Your task to perform on an android device: Add "logitech g pro" to the cart on ebay.com Image 0: 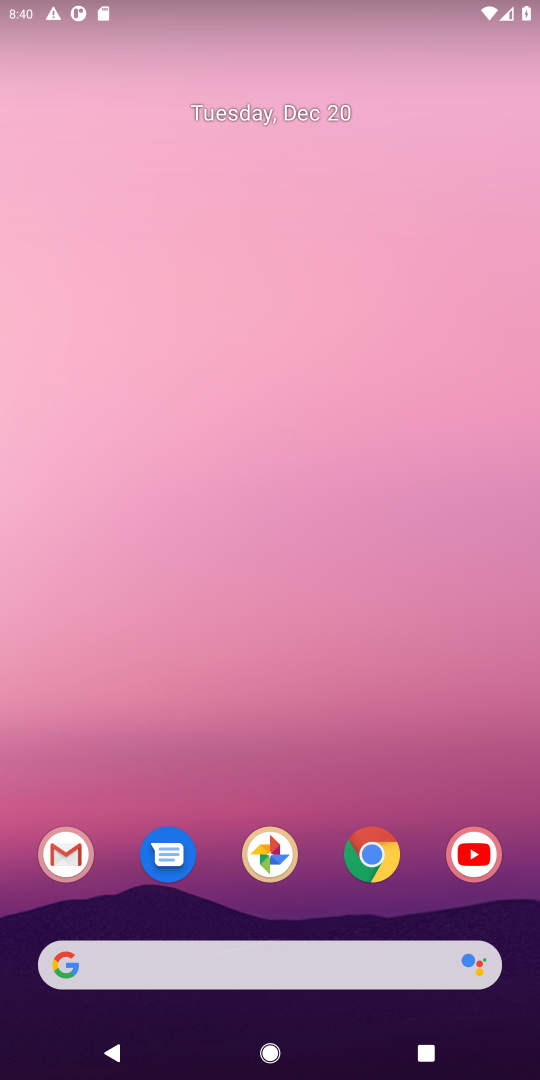
Step 0: click (374, 858)
Your task to perform on an android device: Add "logitech g pro" to the cart on ebay.com Image 1: 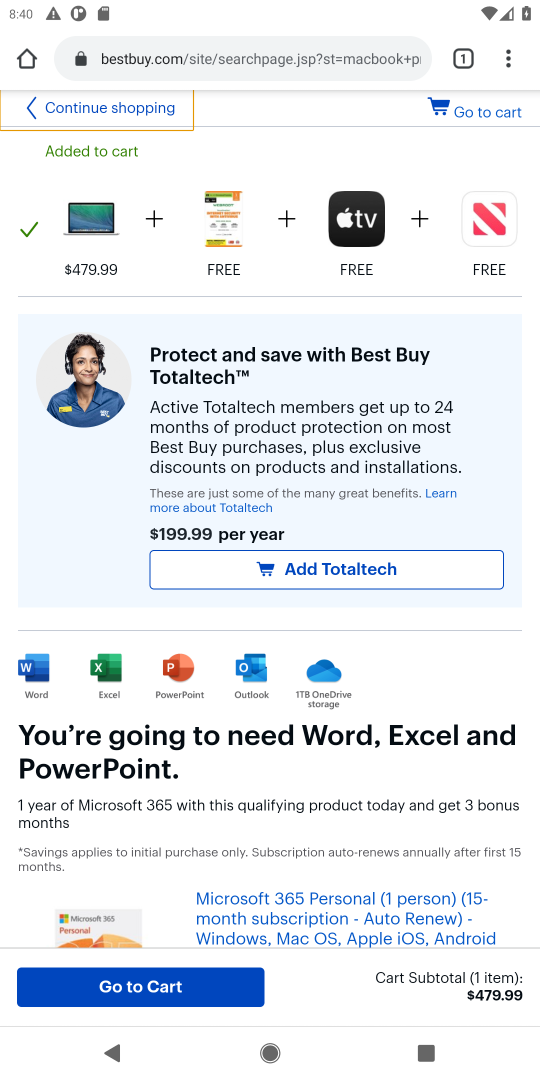
Step 1: click (200, 60)
Your task to perform on an android device: Add "logitech g pro" to the cart on ebay.com Image 2: 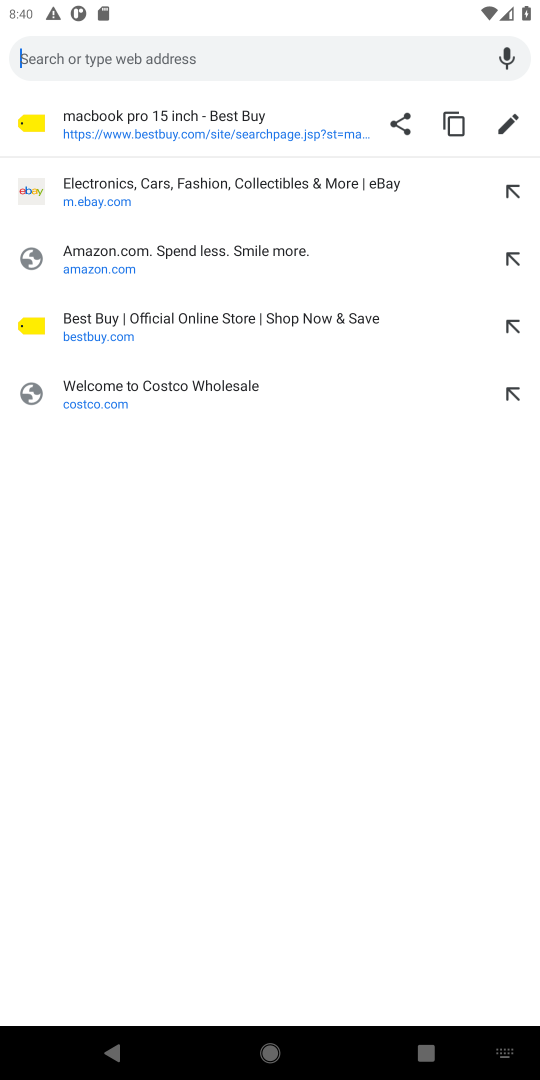
Step 2: click (100, 209)
Your task to perform on an android device: Add "logitech g pro" to the cart on ebay.com Image 3: 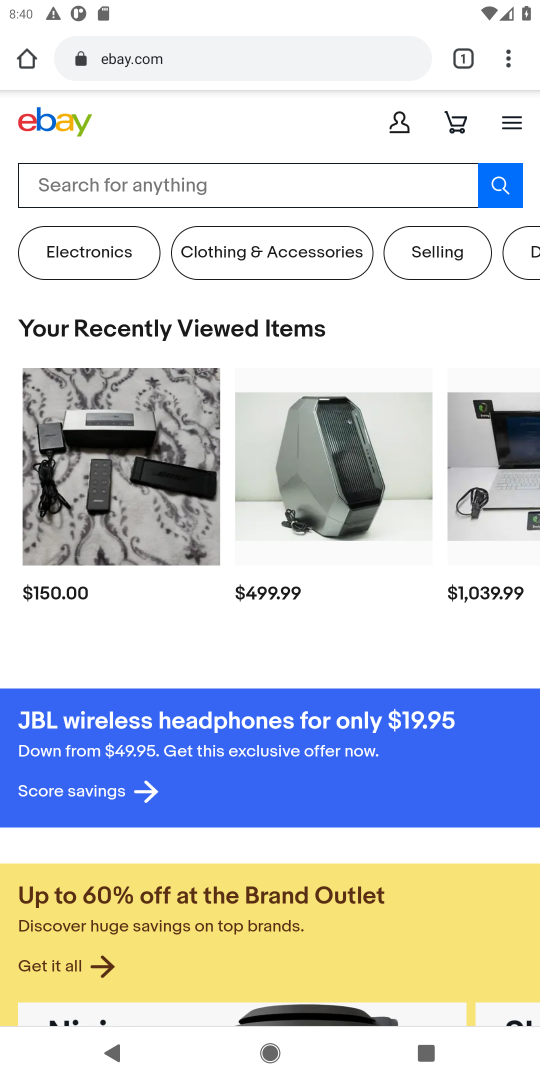
Step 3: click (117, 178)
Your task to perform on an android device: Add "logitech g pro" to the cart on ebay.com Image 4: 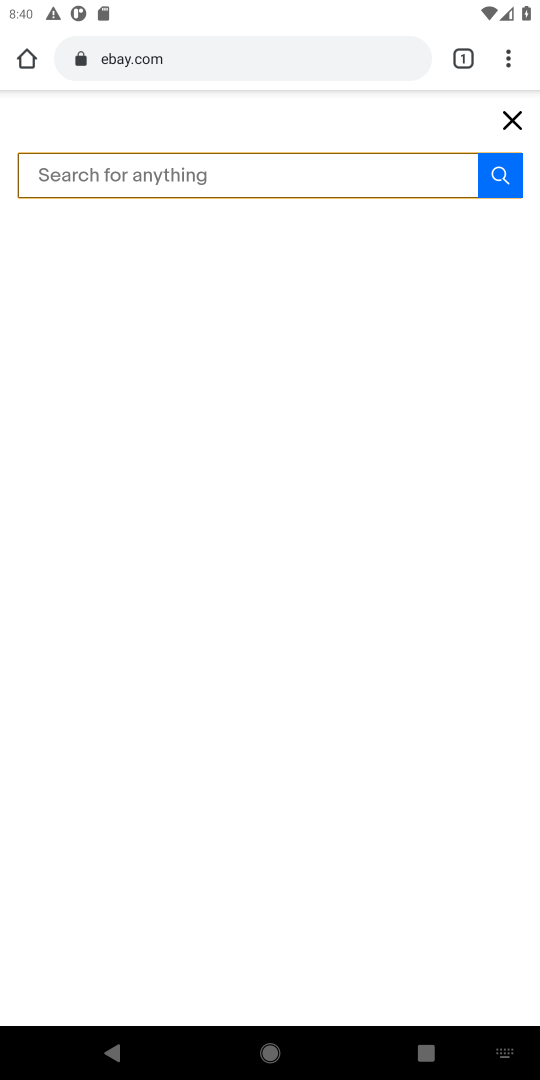
Step 4: type "logitech g pro"
Your task to perform on an android device: Add "logitech g pro" to the cart on ebay.com Image 5: 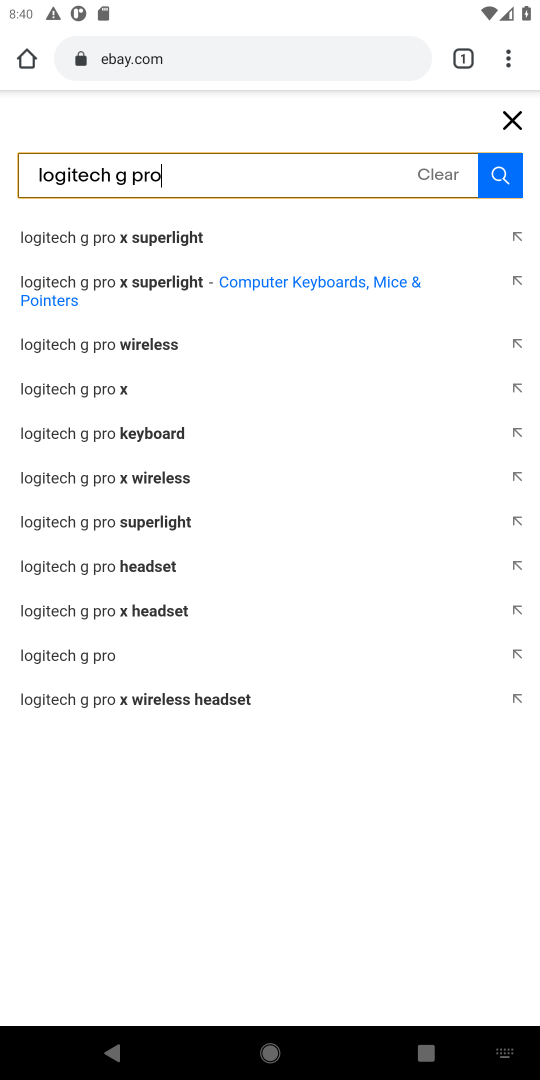
Step 5: click (497, 179)
Your task to perform on an android device: Add "logitech g pro" to the cart on ebay.com Image 6: 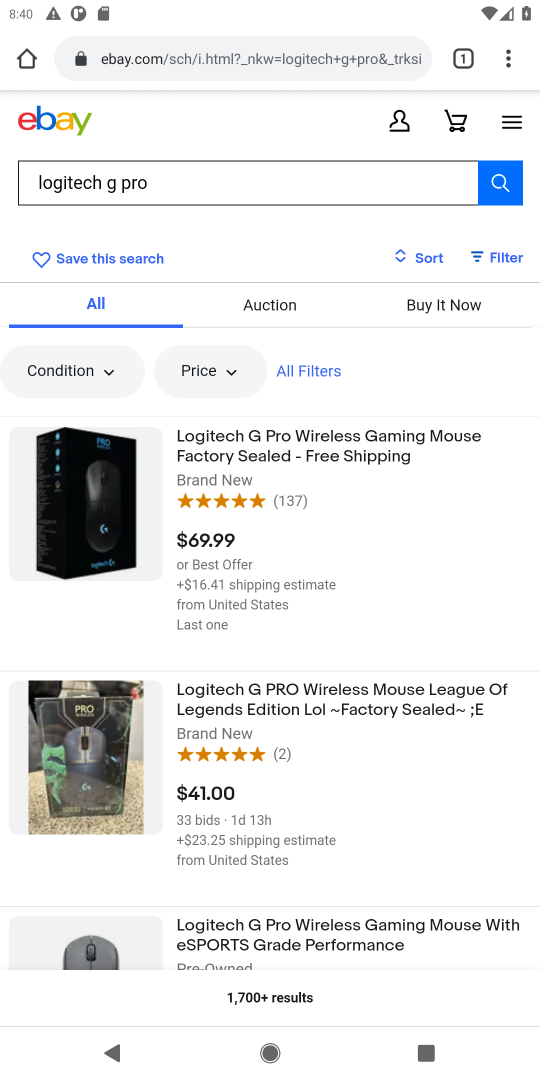
Step 6: click (212, 475)
Your task to perform on an android device: Add "logitech g pro" to the cart on ebay.com Image 7: 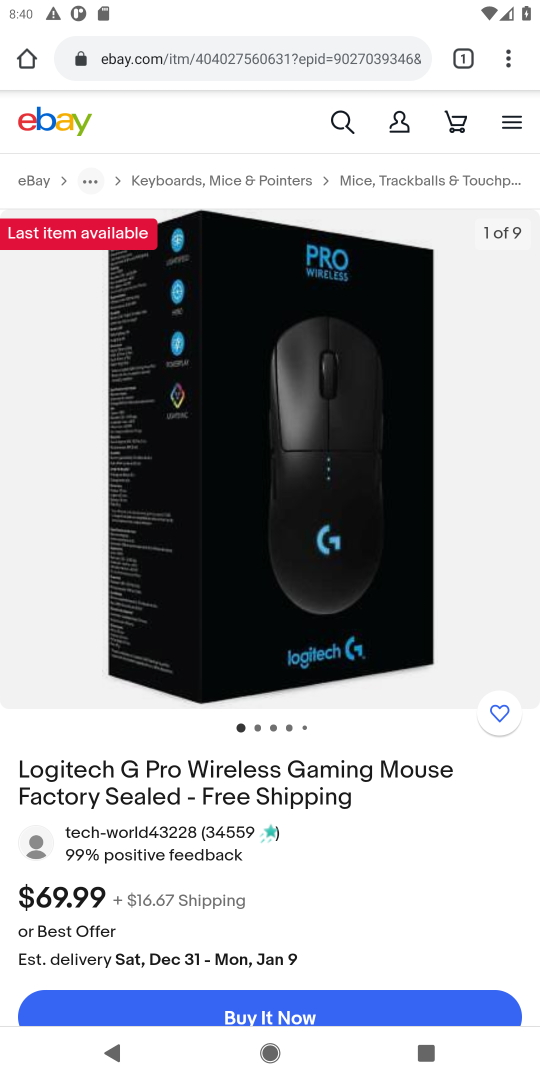
Step 7: drag from (290, 786) to (265, 367)
Your task to perform on an android device: Add "logitech g pro" to the cart on ebay.com Image 8: 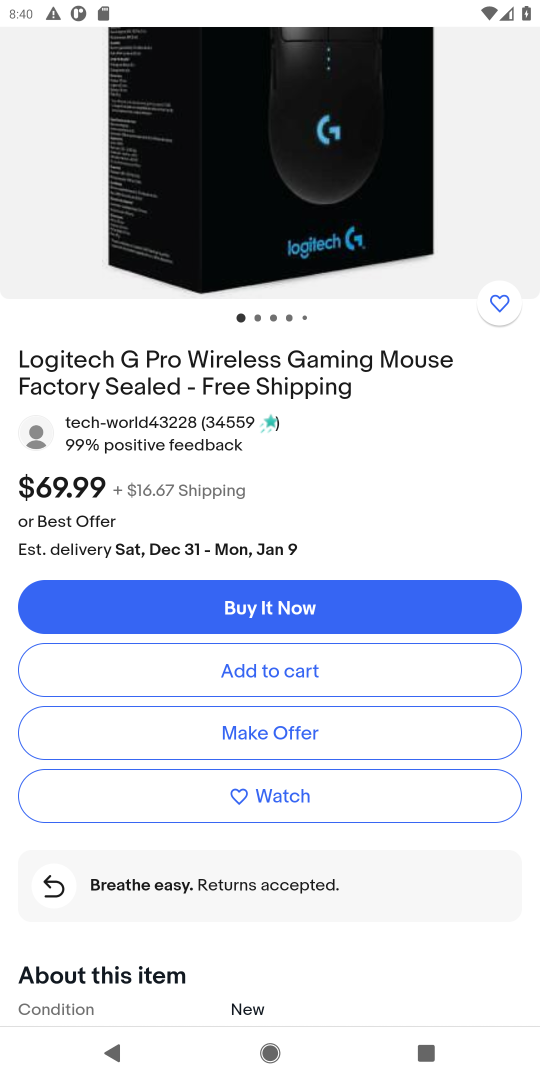
Step 8: click (253, 663)
Your task to perform on an android device: Add "logitech g pro" to the cart on ebay.com Image 9: 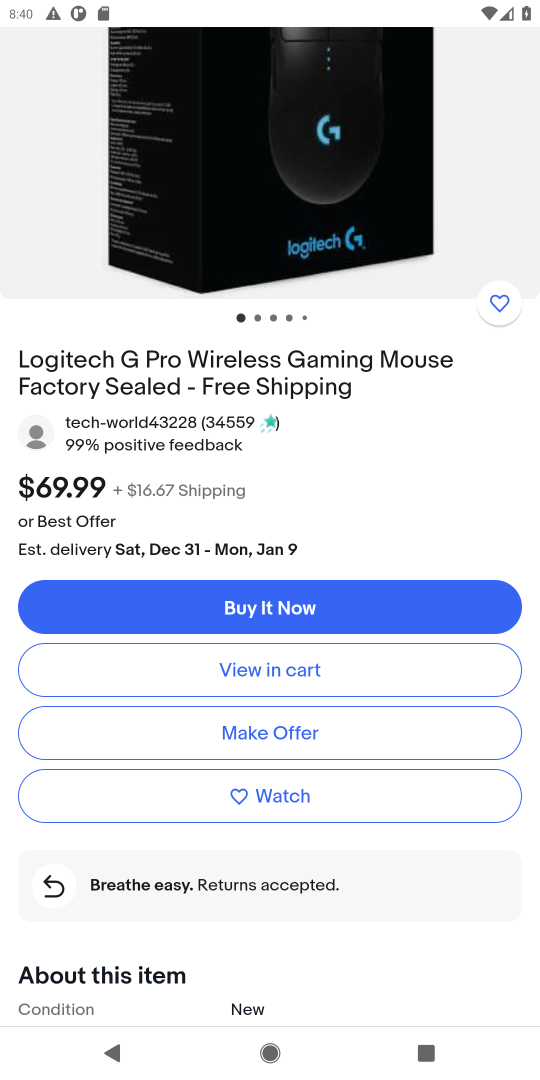
Step 9: task complete